Your task to perform on an android device: See recent photos Image 0: 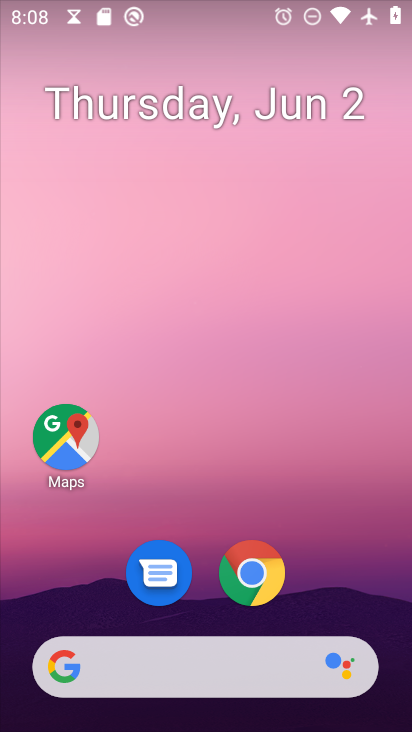
Step 0: press home button
Your task to perform on an android device: See recent photos Image 1: 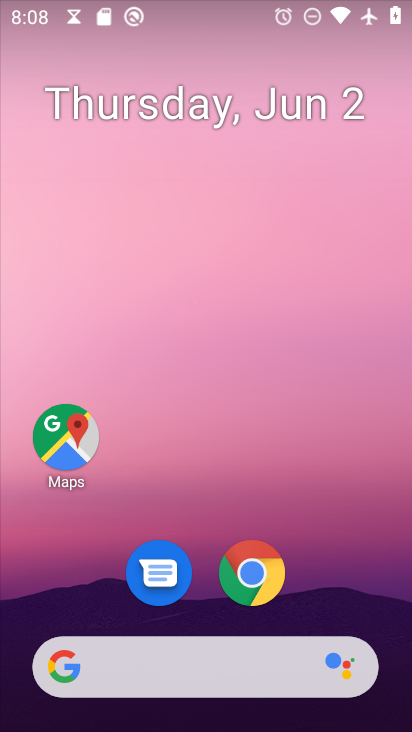
Step 1: drag from (207, 555) to (326, 88)
Your task to perform on an android device: See recent photos Image 2: 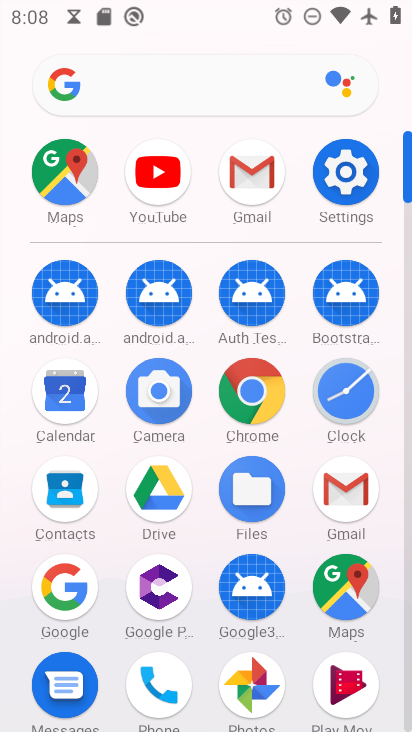
Step 2: drag from (197, 619) to (318, 248)
Your task to perform on an android device: See recent photos Image 3: 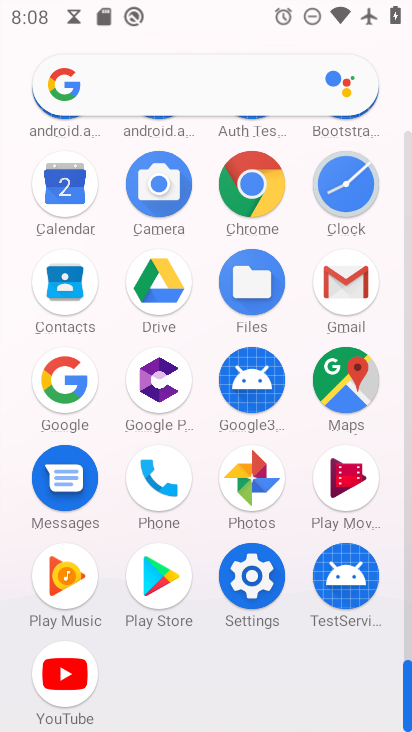
Step 3: click (262, 472)
Your task to perform on an android device: See recent photos Image 4: 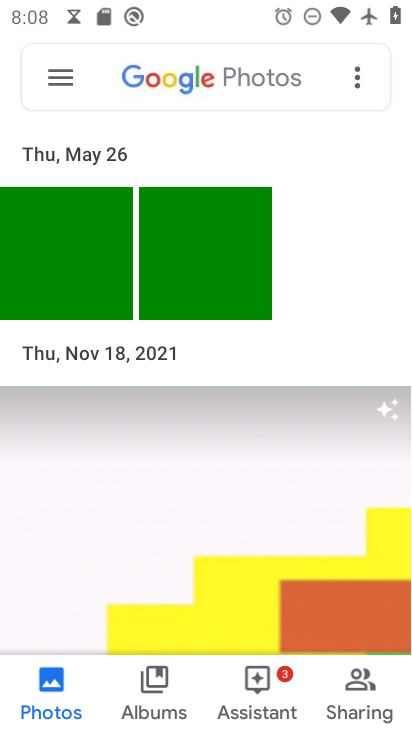
Step 4: click (162, 713)
Your task to perform on an android device: See recent photos Image 5: 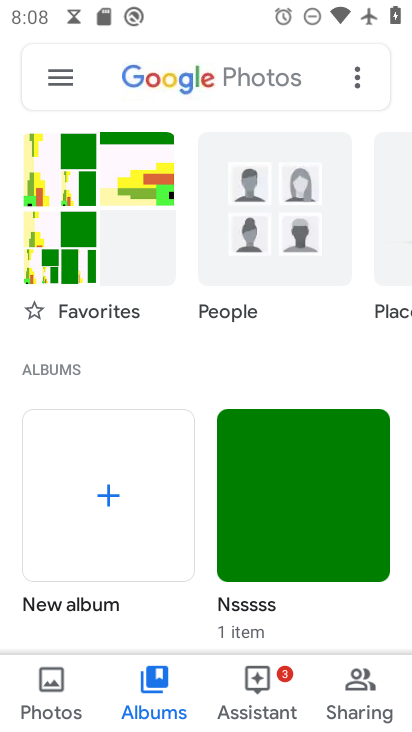
Step 5: task complete